Your task to perform on an android device: open a bookmark in the chrome app Image 0: 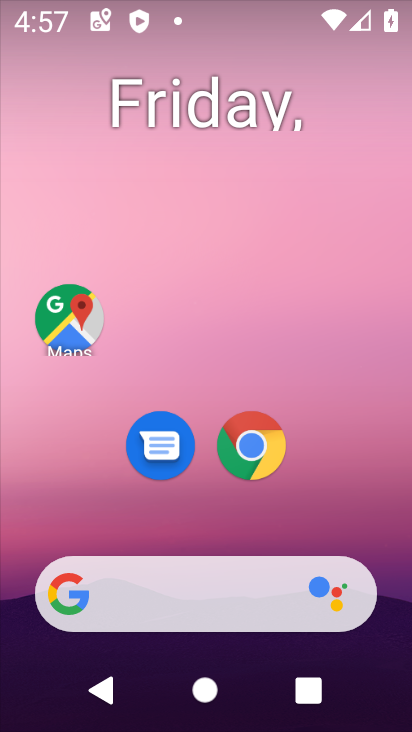
Step 0: click (230, 445)
Your task to perform on an android device: open a bookmark in the chrome app Image 1: 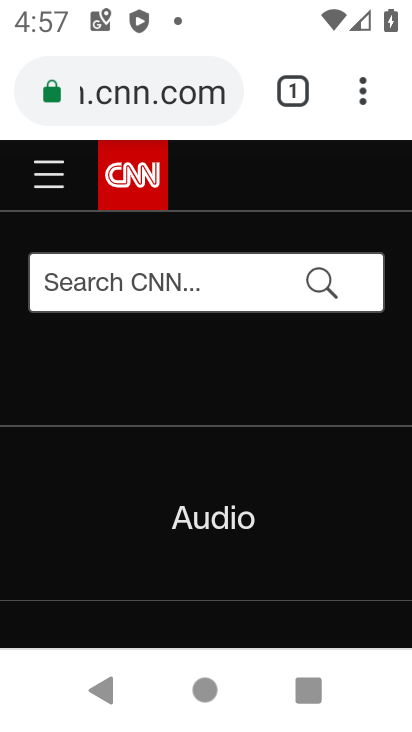
Step 1: click (357, 94)
Your task to perform on an android device: open a bookmark in the chrome app Image 2: 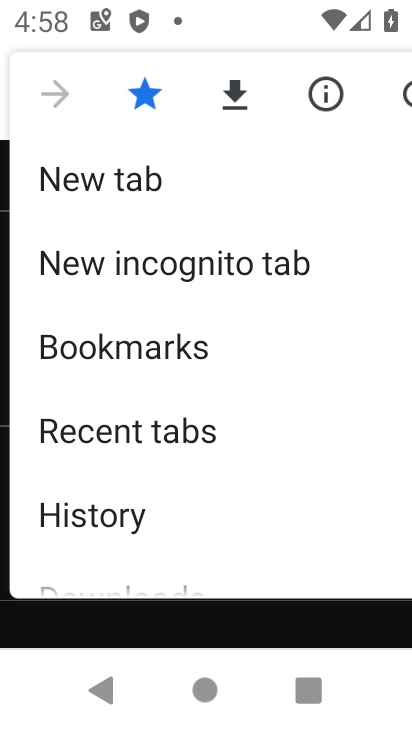
Step 2: click (221, 379)
Your task to perform on an android device: open a bookmark in the chrome app Image 3: 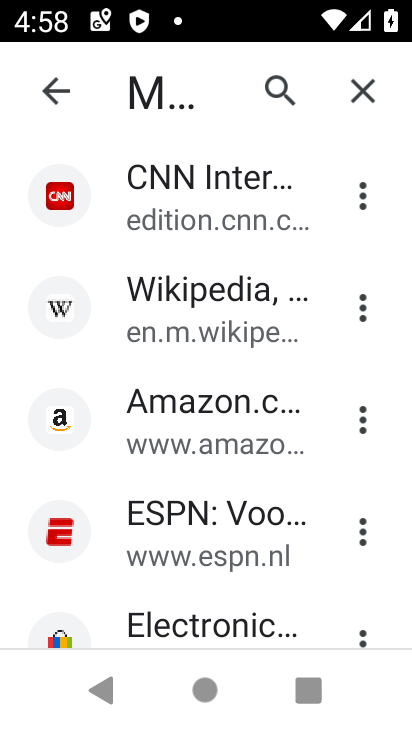
Step 3: click (167, 243)
Your task to perform on an android device: open a bookmark in the chrome app Image 4: 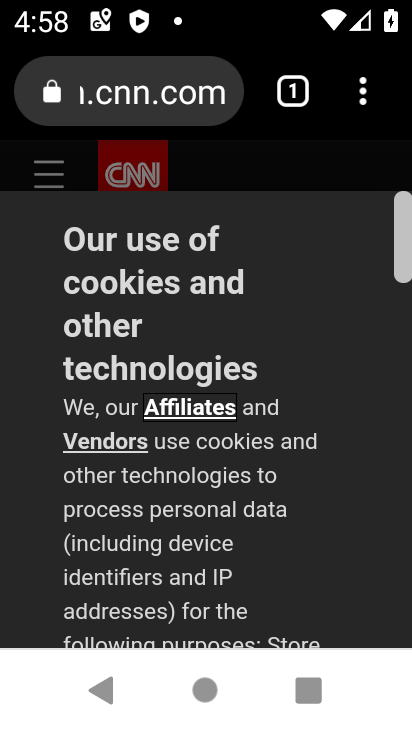
Step 4: task complete